Your task to perform on an android device: Open Chrome and go to settings Image 0: 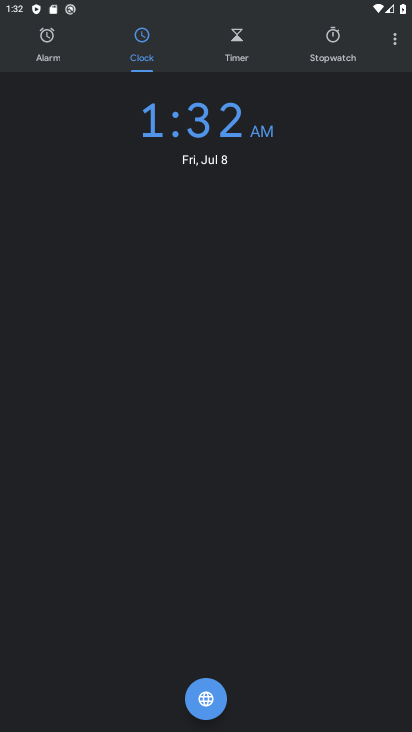
Step 0: press home button
Your task to perform on an android device: Open Chrome and go to settings Image 1: 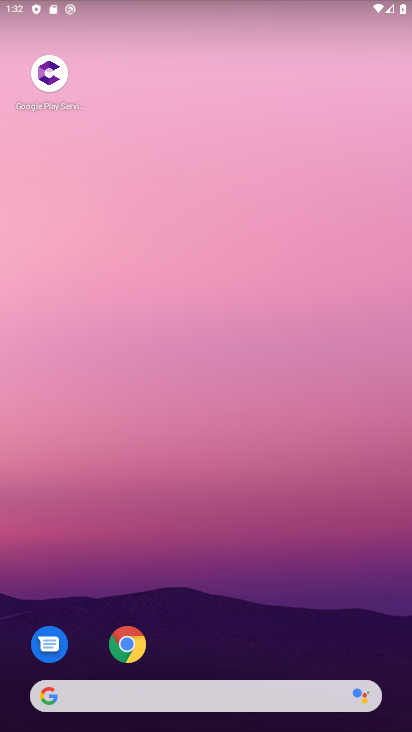
Step 1: click (128, 646)
Your task to perform on an android device: Open Chrome and go to settings Image 2: 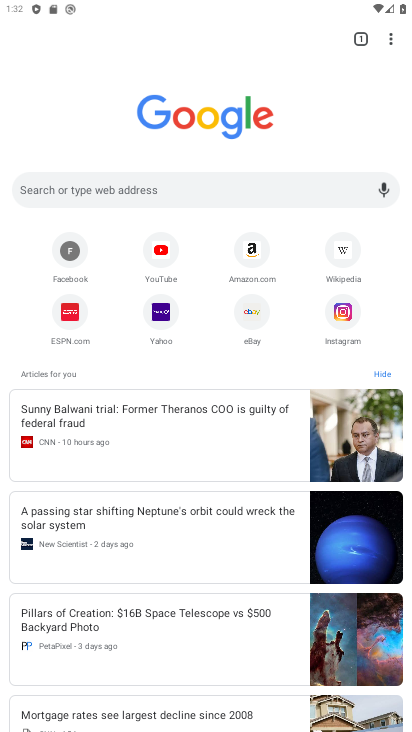
Step 2: click (386, 40)
Your task to perform on an android device: Open Chrome and go to settings Image 3: 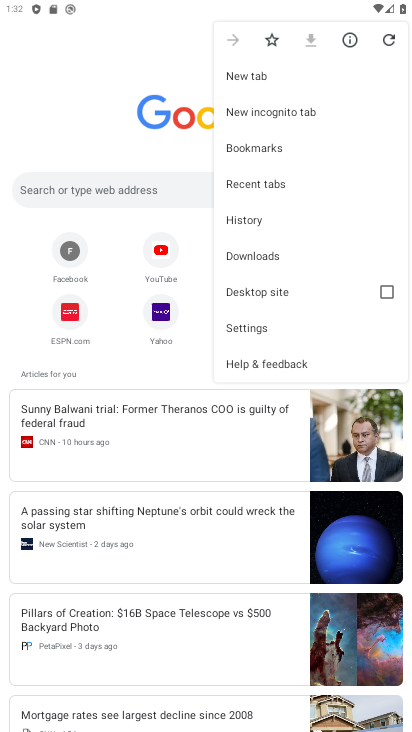
Step 3: click (268, 321)
Your task to perform on an android device: Open Chrome and go to settings Image 4: 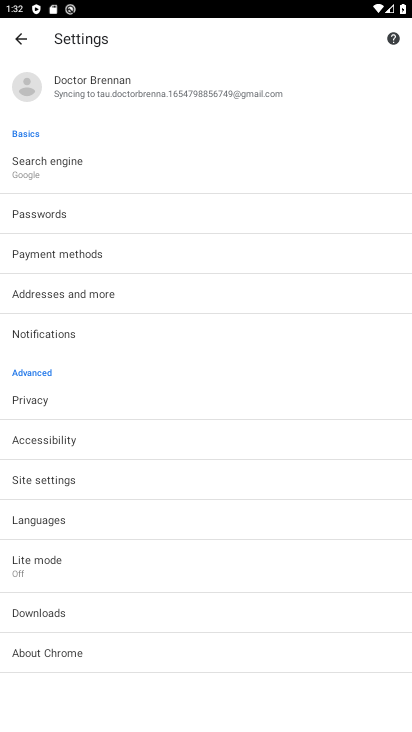
Step 4: task complete